Your task to perform on an android device: Toggle the flashlight Image 0: 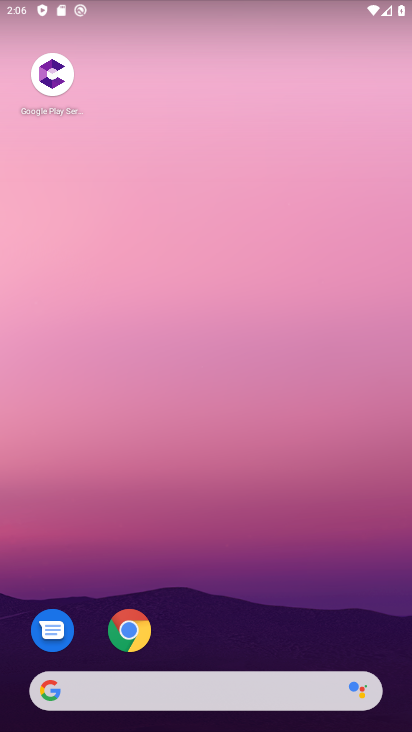
Step 0: drag from (298, 644) to (198, 72)
Your task to perform on an android device: Toggle the flashlight Image 1: 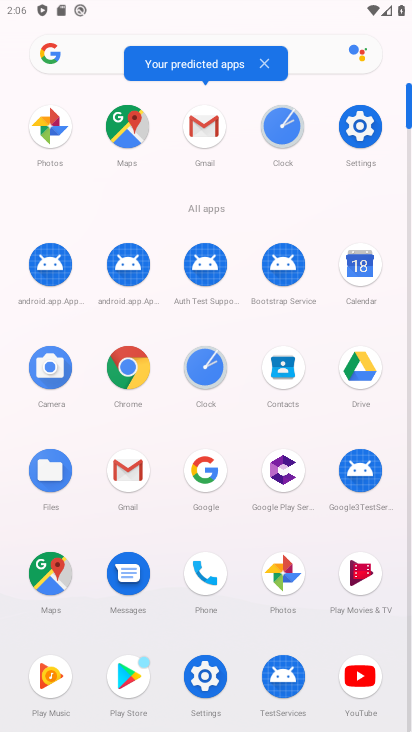
Step 1: click (210, 667)
Your task to perform on an android device: Toggle the flashlight Image 2: 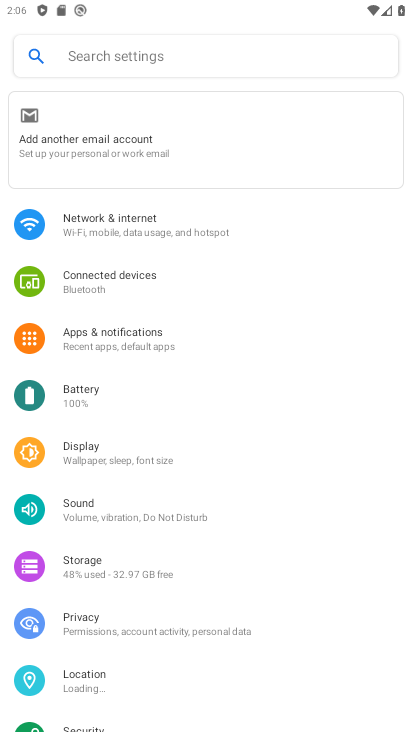
Step 2: task complete